Your task to perform on an android device: remove spam from my inbox in the gmail app Image 0: 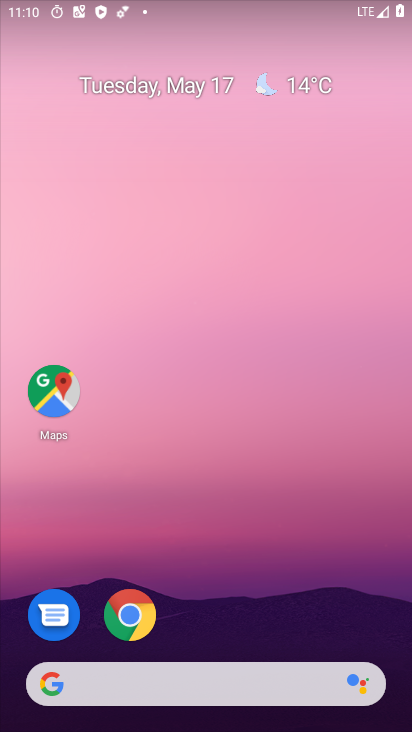
Step 0: press home button
Your task to perform on an android device: remove spam from my inbox in the gmail app Image 1: 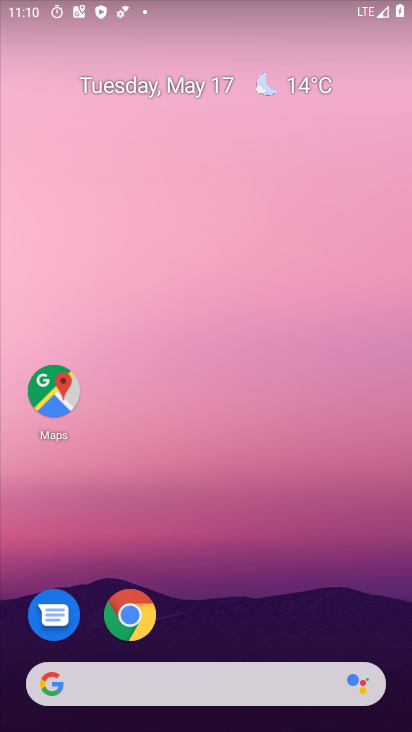
Step 1: drag from (135, 673) to (283, 49)
Your task to perform on an android device: remove spam from my inbox in the gmail app Image 2: 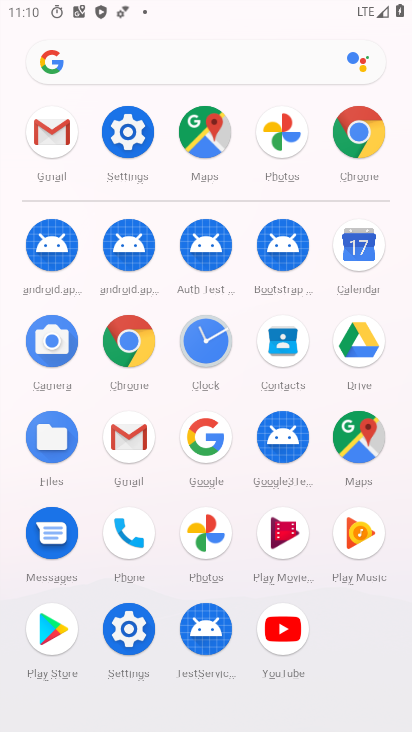
Step 2: click (56, 138)
Your task to perform on an android device: remove spam from my inbox in the gmail app Image 3: 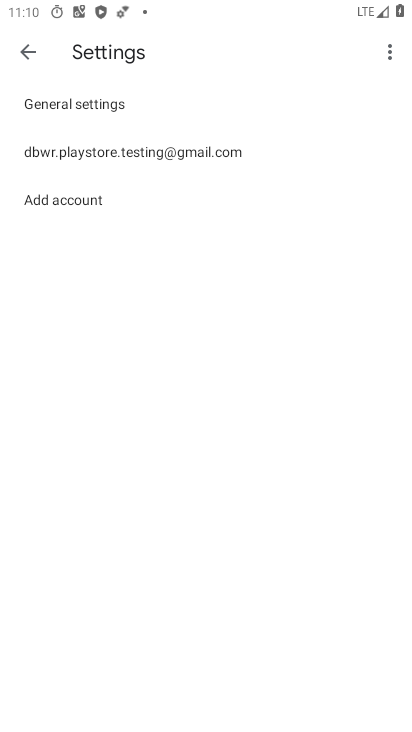
Step 3: click (29, 50)
Your task to perform on an android device: remove spam from my inbox in the gmail app Image 4: 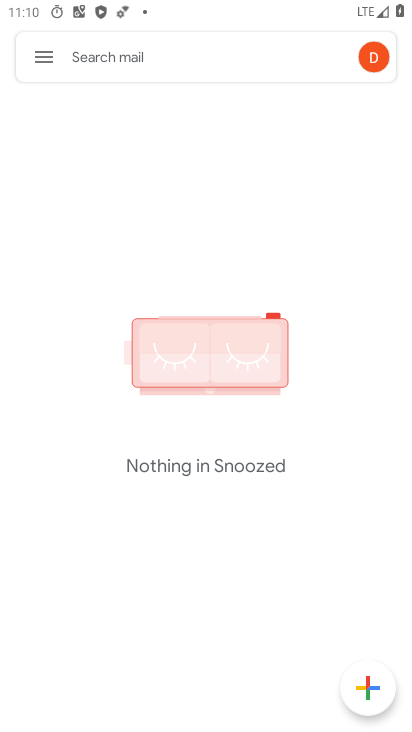
Step 4: click (40, 52)
Your task to perform on an android device: remove spam from my inbox in the gmail app Image 5: 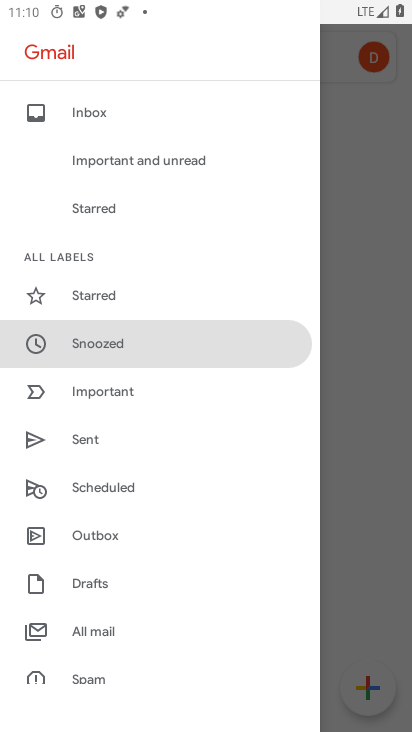
Step 5: click (102, 679)
Your task to perform on an android device: remove spam from my inbox in the gmail app Image 6: 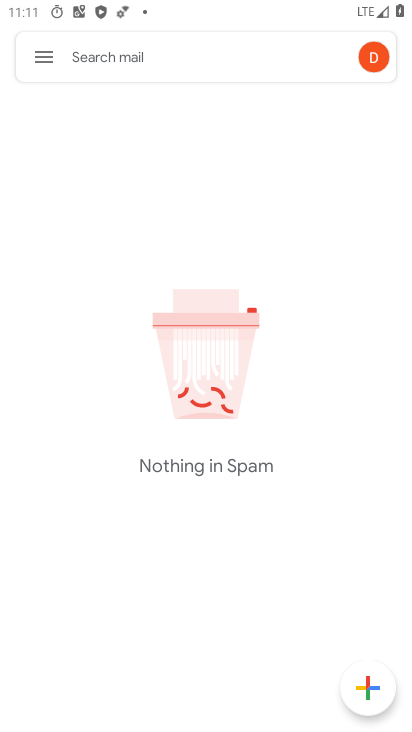
Step 6: task complete